Your task to perform on an android device: Open Chrome and go to settings Image 0: 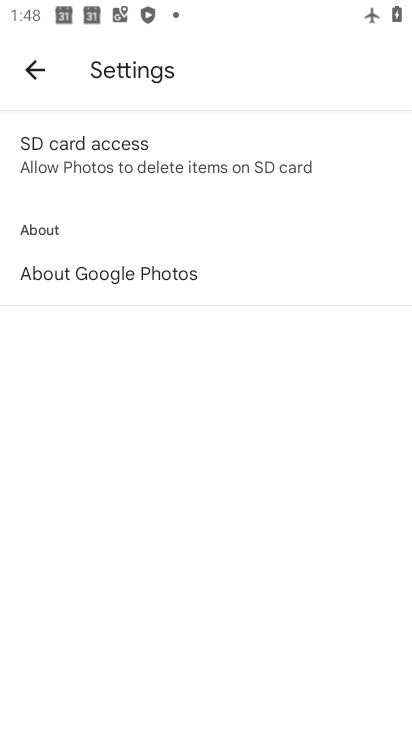
Step 0: press home button
Your task to perform on an android device: Open Chrome and go to settings Image 1: 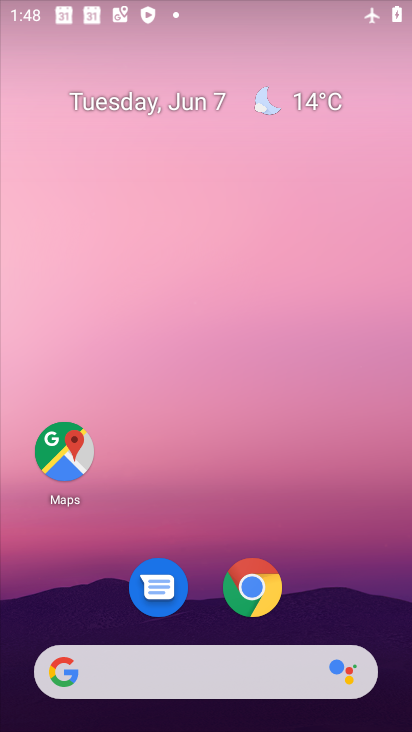
Step 1: drag from (251, 665) to (339, 149)
Your task to perform on an android device: Open Chrome and go to settings Image 2: 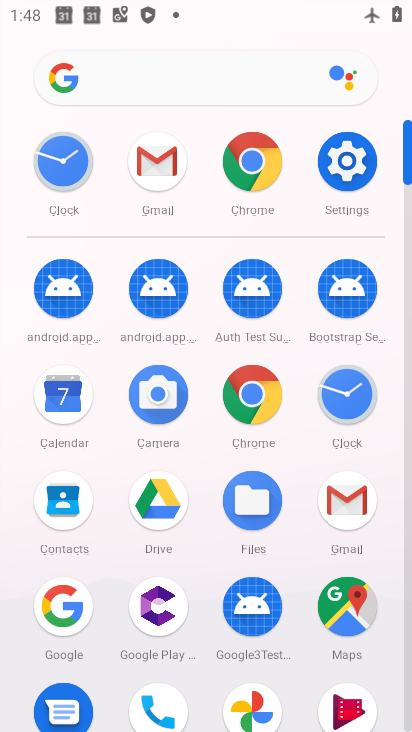
Step 2: click (270, 166)
Your task to perform on an android device: Open Chrome and go to settings Image 3: 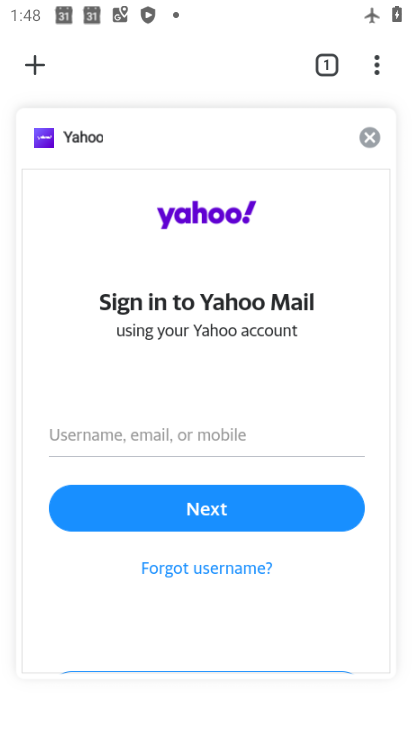
Step 3: click (254, 256)
Your task to perform on an android device: Open Chrome and go to settings Image 4: 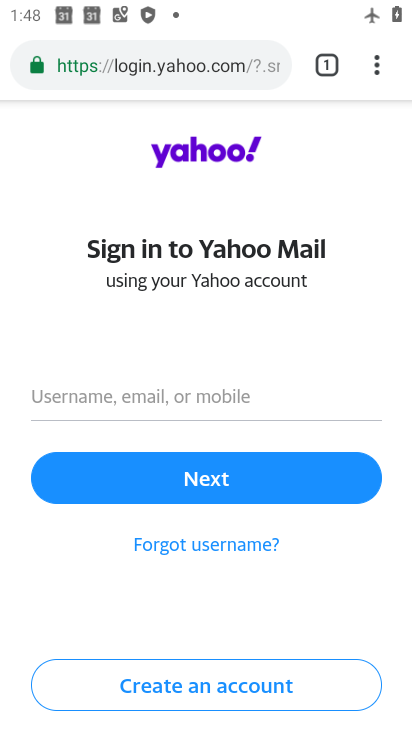
Step 4: click (372, 78)
Your task to perform on an android device: Open Chrome and go to settings Image 5: 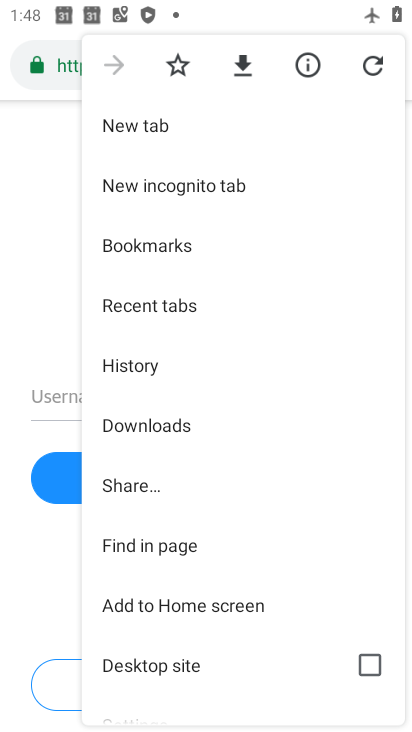
Step 5: drag from (159, 655) to (222, 265)
Your task to perform on an android device: Open Chrome and go to settings Image 6: 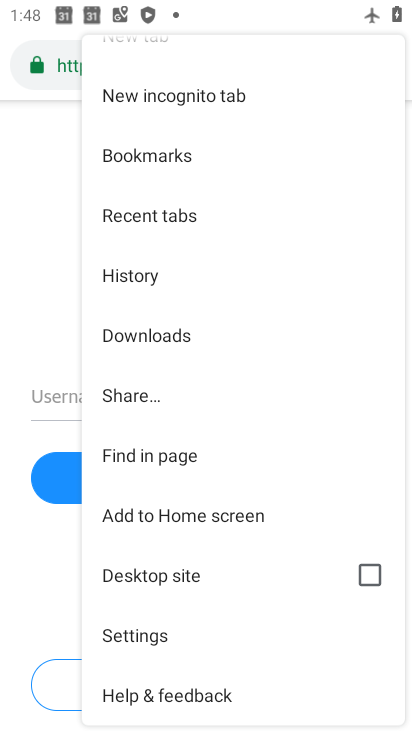
Step 6: click (136, 644)
Your task to perform on an android device: Open Chrome and go to settings Image 7: 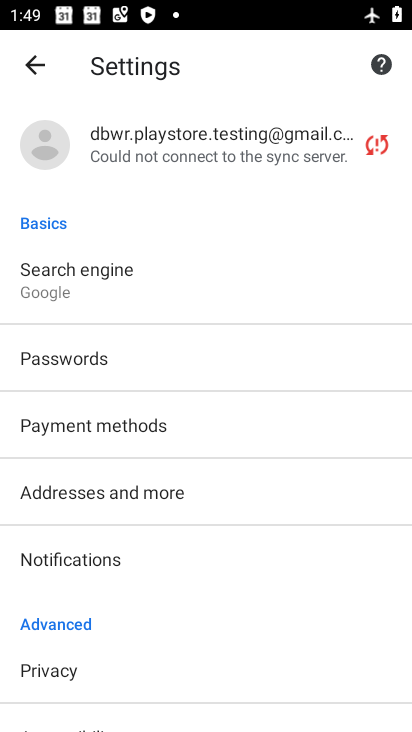
Step 7: task complete